Your task to perform on an android device: toggle pop-ups in chrome Image 0: 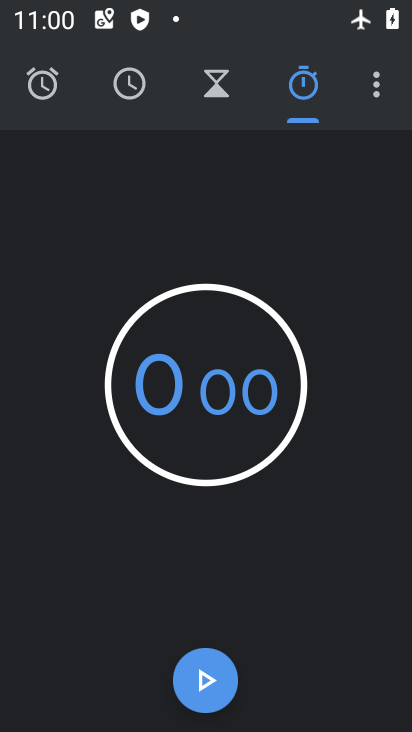
Step 0: press home button
Your task to perform on an android device: toggle pop-ups in chrome Image 1: 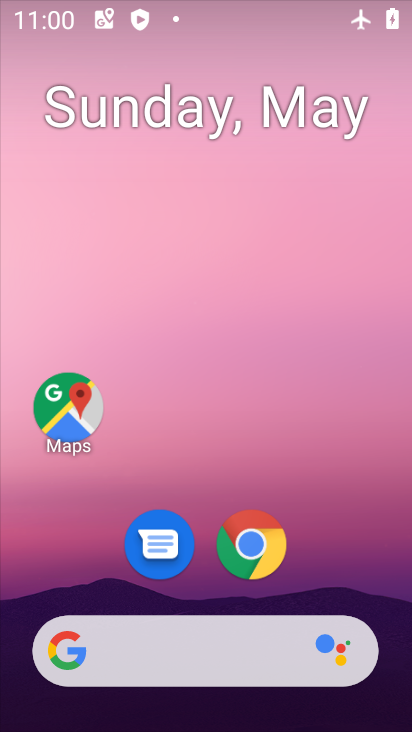
Step 1: drag from (319, 512) to (335, 308)
Your task to perform on an android device: toggle pop-ups in chrome Image 2: 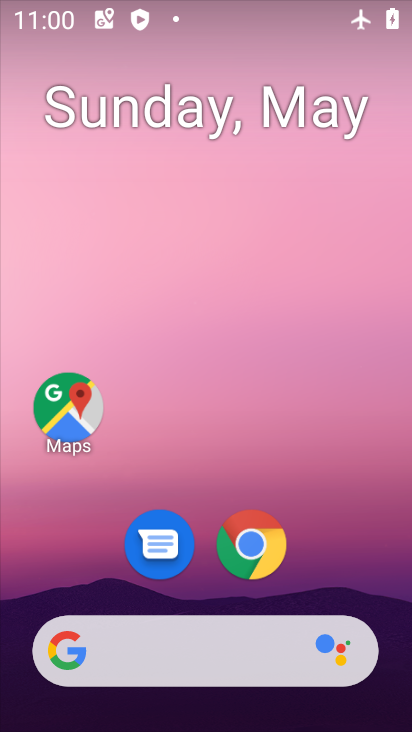
Step 2: drag from (365, 564) to (341, 279)
Your task to perform on an android device: toggle pop-ups in chrome Image 3: 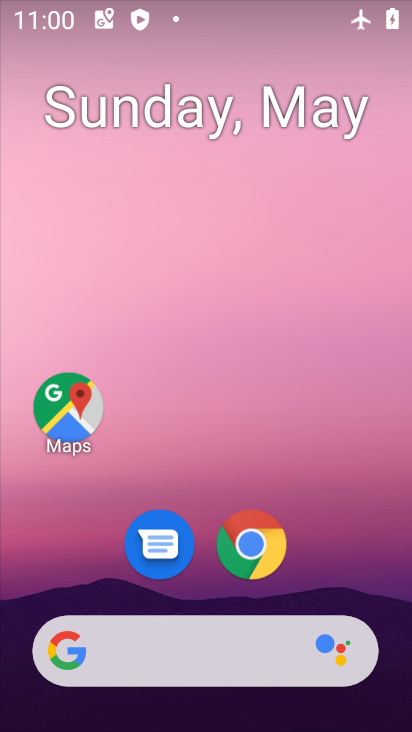
Step 3: click (257, 540)
Your task to perform on an android device: toggle pop-ups in chrome Image 4: 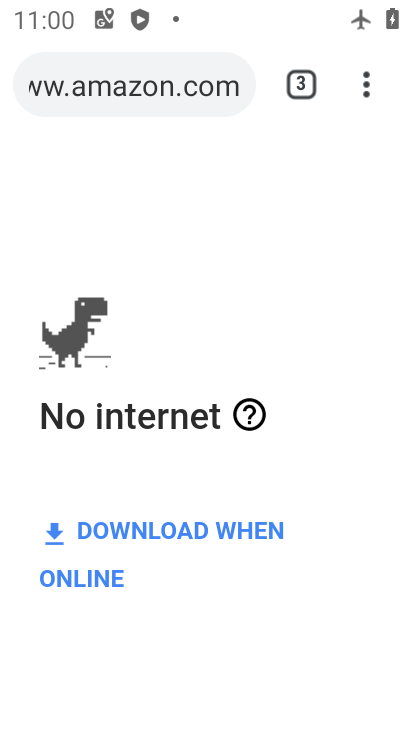
Step 4: click (369, 86)
Your task to perform on an android device: toggle pop-ups in chrome Image 5: 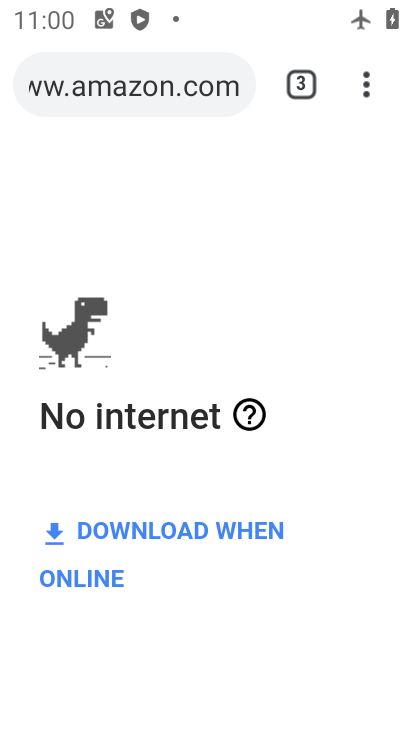
Step 5: click (374, 81)
Your task to perform on an android device: toggle pop-ups in chrome Image 6: 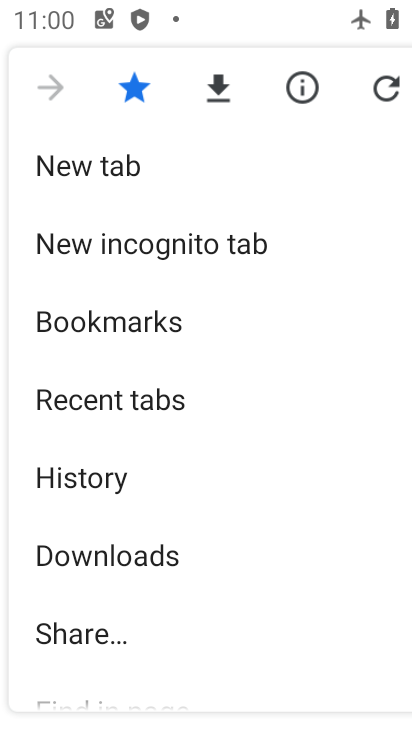
Step 6: drag from (219, 582) to (285, 228)
Your task to perform on an android device: toggle pop-ups in chrome Image 7: 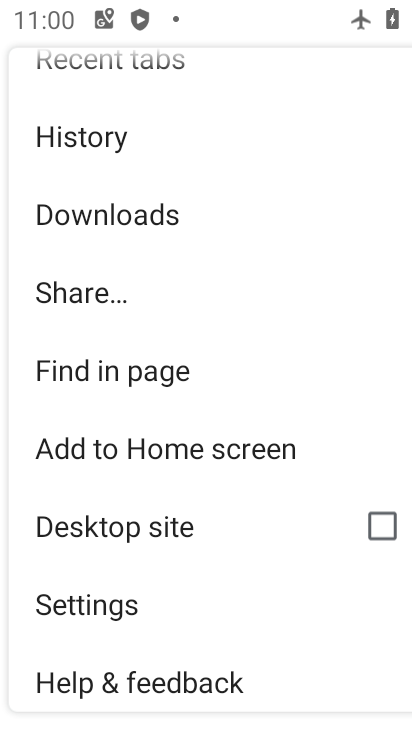
Step 7: click (127, 601)
Your task to perform on an android device: toggle pop-ups in chrome Image 8: 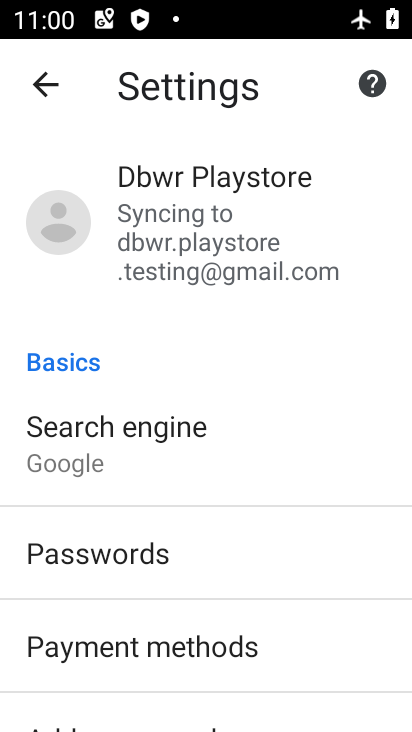
Step 8: drag from (304, 557) to (359, 250)
Your task to perform on an android device: toggle pop-ups in chrome Image 9: 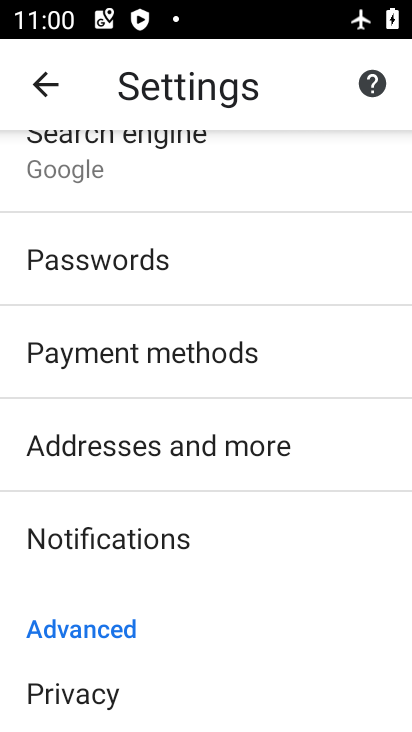
Step 9: drag from (213, 643) to (295, 252)
Your task to perform on an android device: toggle pop-ups in chrome Image 10: 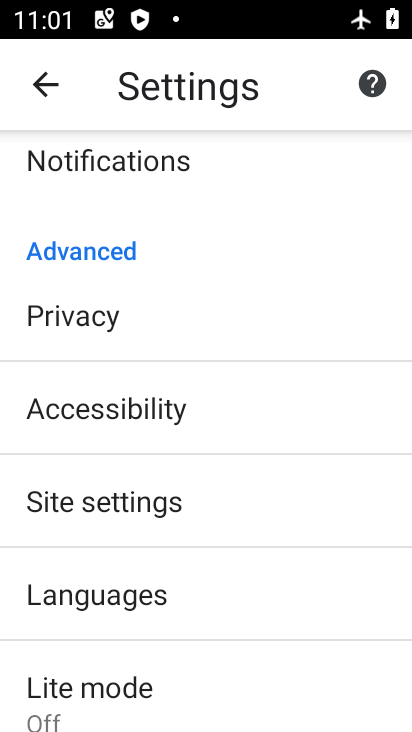
Step 10: drag from (227, 607) to (274, 388)
Your task to perform on an android device: toggle pop-ups in chrome Image 11: 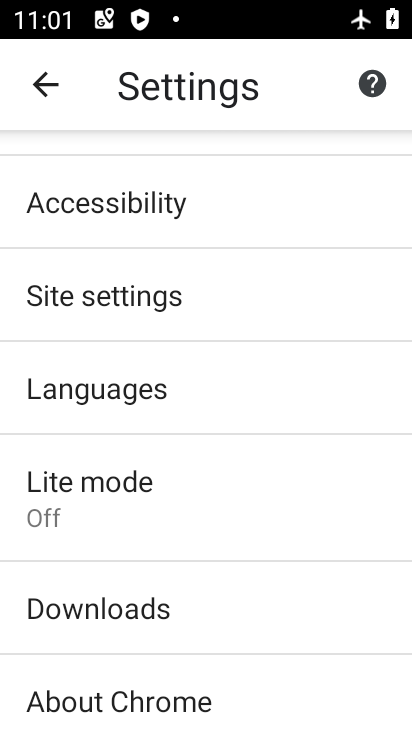
Step 11: click (228, 303)
Your task to perform on an android device: toggle pop-ups in chrome Image 12: 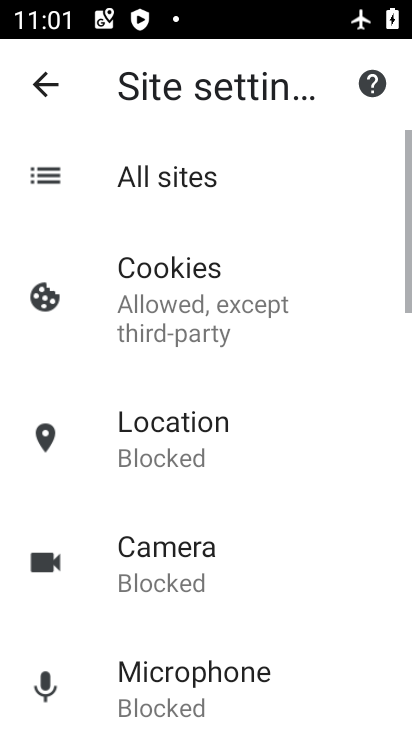
Step 12: drag from (273, 610) to (345, 222)
Your task to perform on an android device: toggle pop-ups in chrome Image 13: 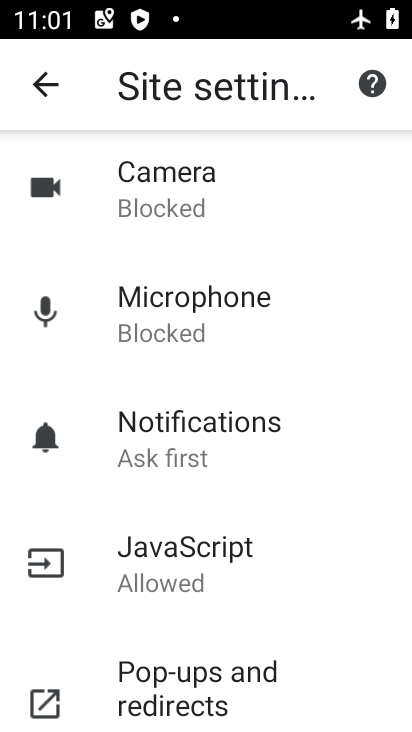
Step 13: click (228, 671)
Your task to perform on an android device: toggle pop-ups in chrome Image 14: 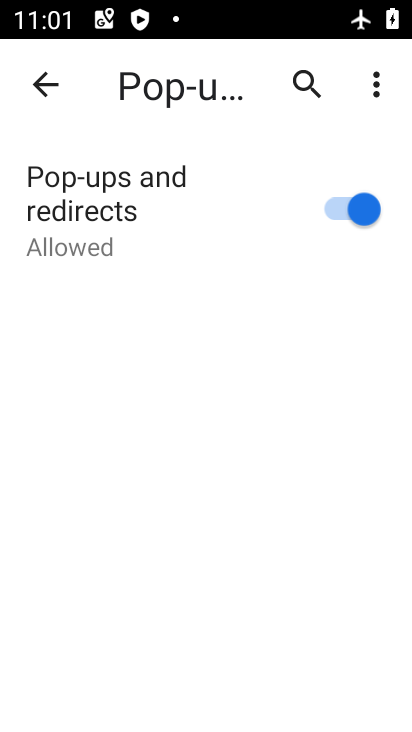
Step 14: click (319, 198)
Your task to perform on an android device: toggle pop-ups in chrome Image 15: 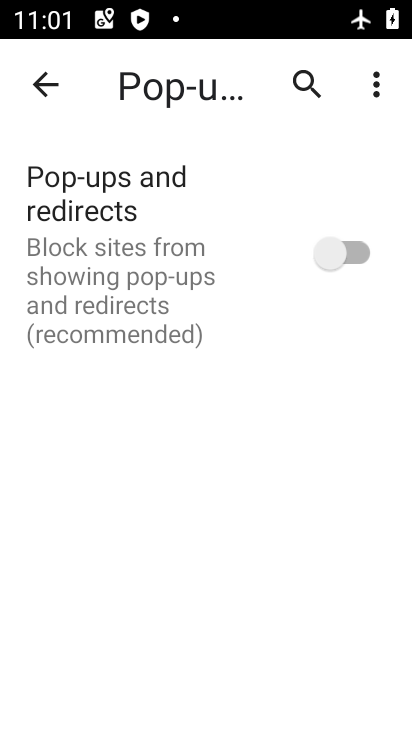
Step 15: task complete